Your task to perform on an android device: Go to eBay Image 0: 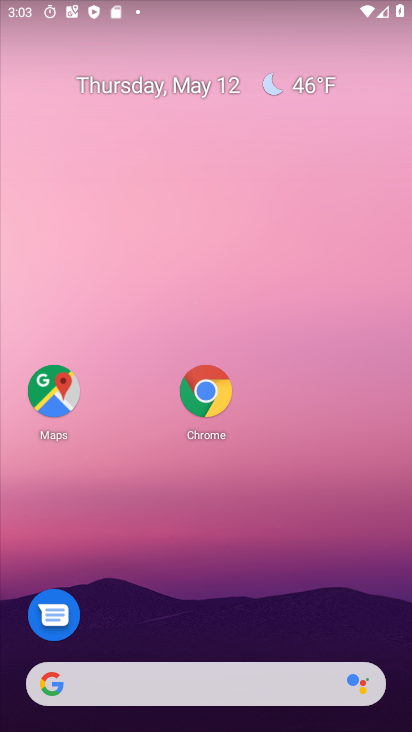
Step 0: drag from (179, 625) to (224, 4)
Your task to perform on an android device: Go to eBay Image 1: 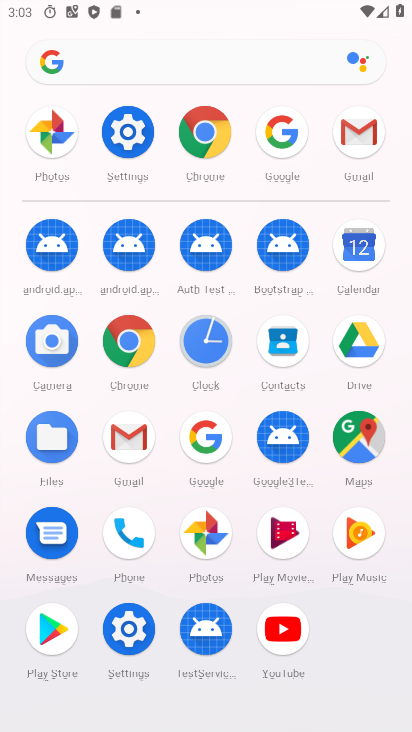
Step 1: drag from (185, 203) to (186, 159)
Your task to perform on an android device: Go to eBay Image 2: 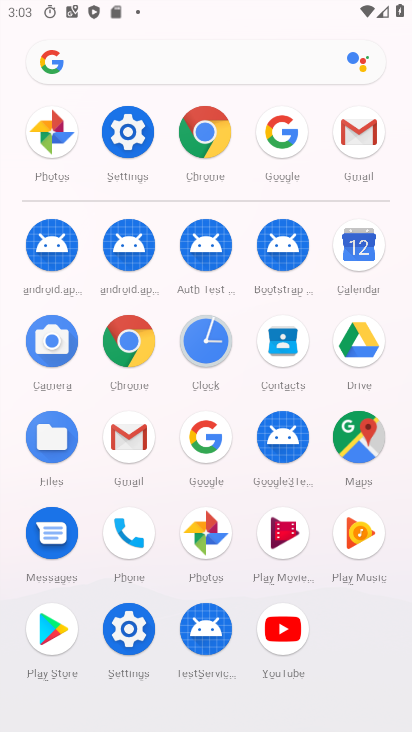
Step 2: click (282, 128)
Your task to perform on an android device: Go to eBay Image 3: 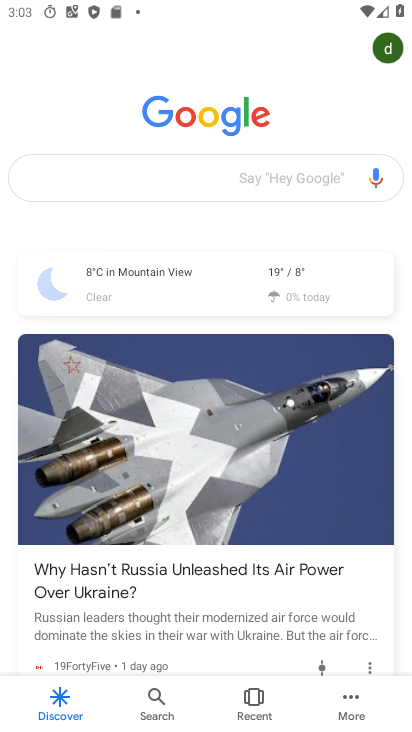
Step 3: click (183, 177)
Your task to perform on an android device: Go to eBay Image 4: 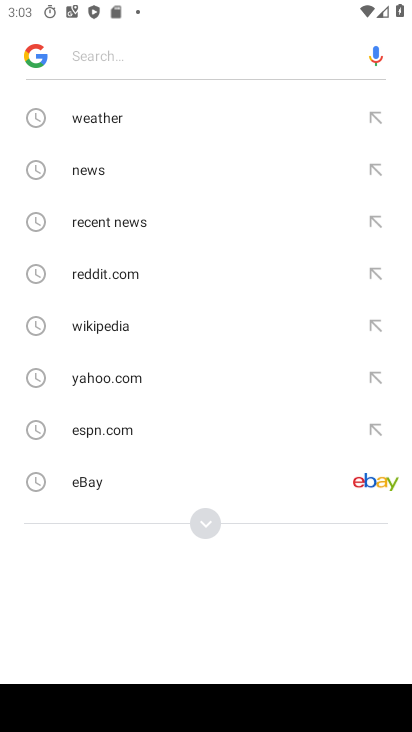
Step 4: click (119, 492)
Your task to perform on an android device: Go to eBay Image 5: 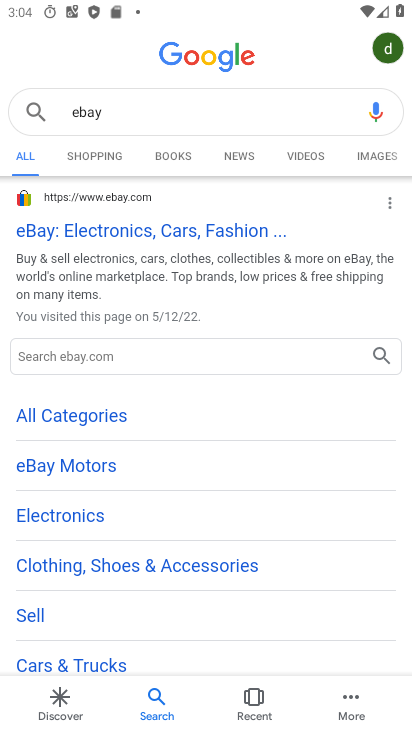
Step 5: task complete